Your task to perform on an android device: Open Android settings Image 0: 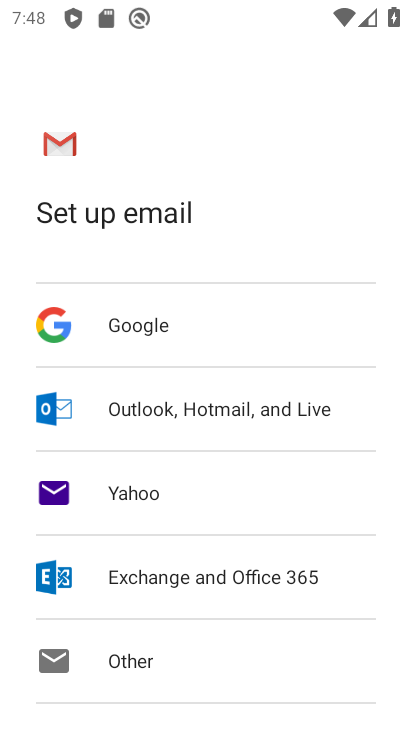
Step 0: press home button
Your task to perform on an android device: Open Android settings Image 1: 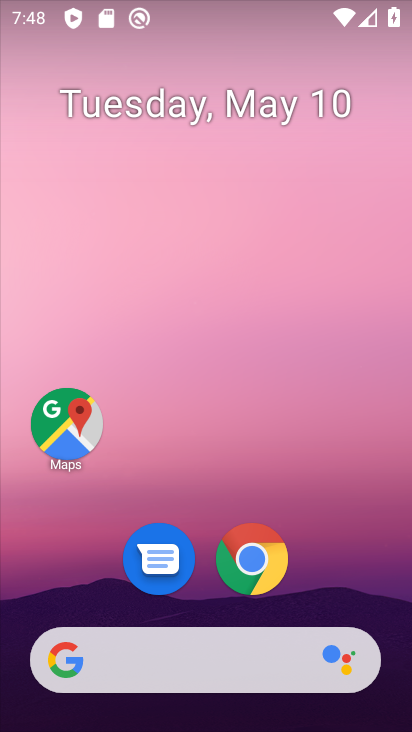
Step 1: drag from (349, 535) to (284, 174)
Your task to perform on an android device: Open Android settings Image 2: 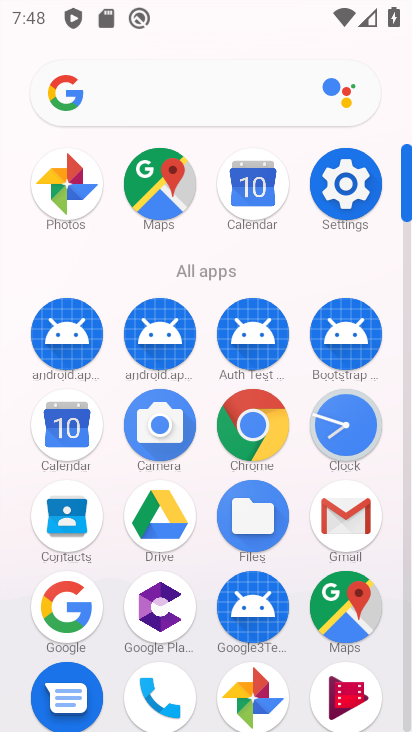
Step 2: click (334, 208)
Your task to perform on an android device: Open Android settings Image 3: 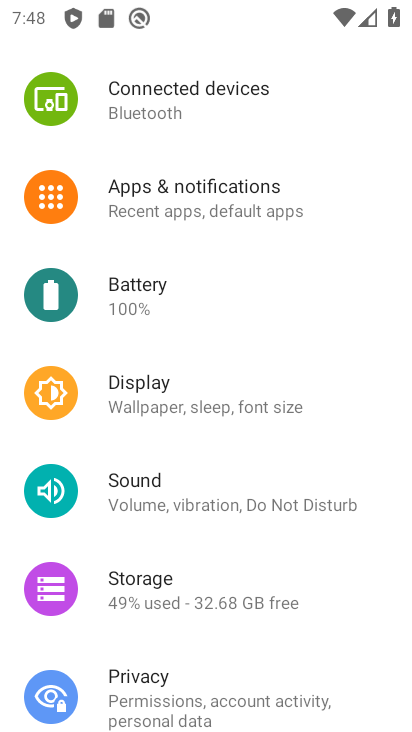
Step 3: task complete